Your task to perform on an android device: change the upload size in google photos Image 0: 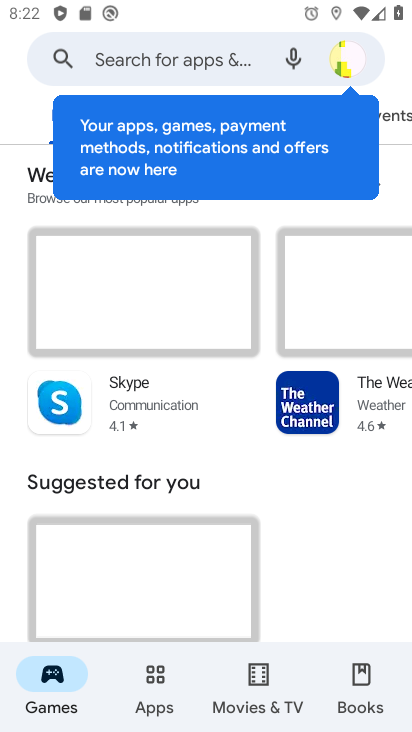
Step 0: press home button
Your task to perform on an android device: change the upload size in google photos Image 1: 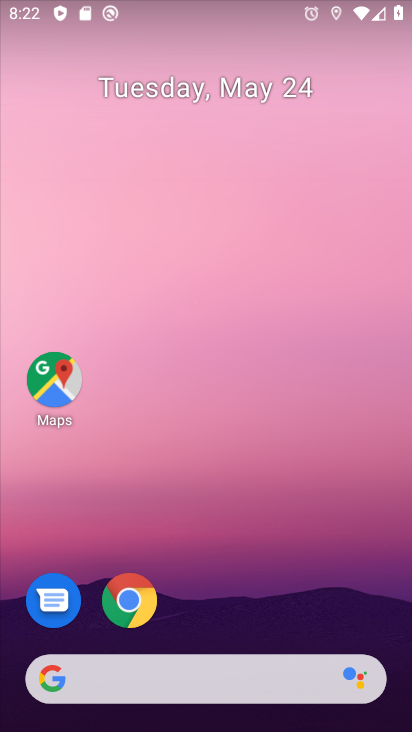
Step 1: drag from (206, 728) to (207, 73)
Your task to perform on an android device: change the upload size in google photos Image 2: 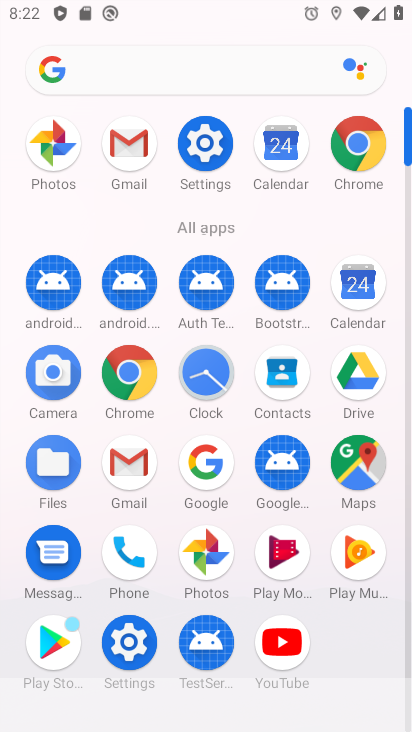
Step 2: click (210, 550)
Your task to perform on an android device: change the upload size in google photos Image 3: 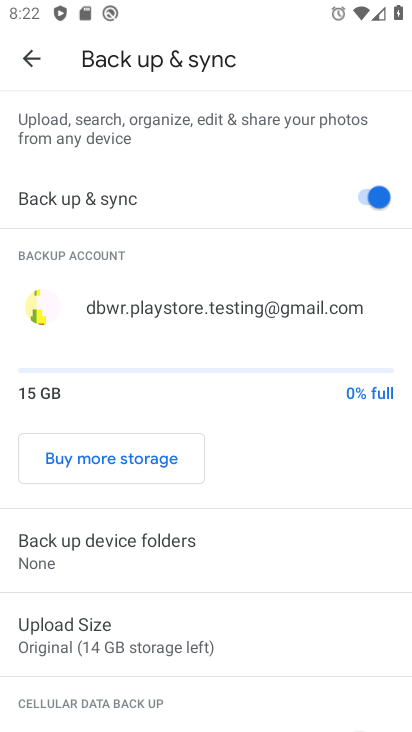
Step 3: click (67, 638)
Your task to perform on an android device: change the upload size in google photos Image 4: 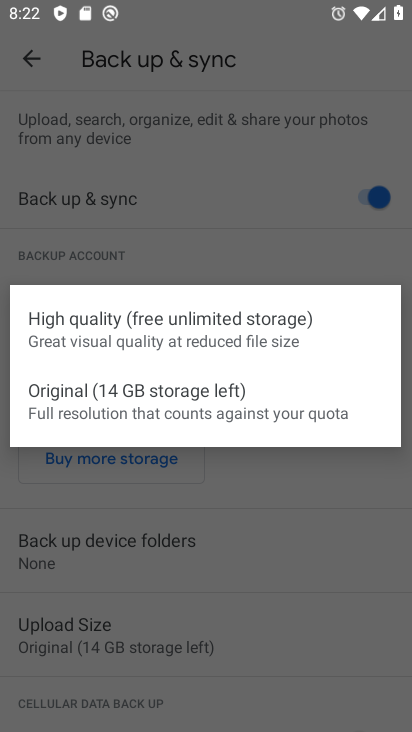
Step 4: click (87, 329)
Your task to perform on an android device: change the upload size in google photos Image 5: 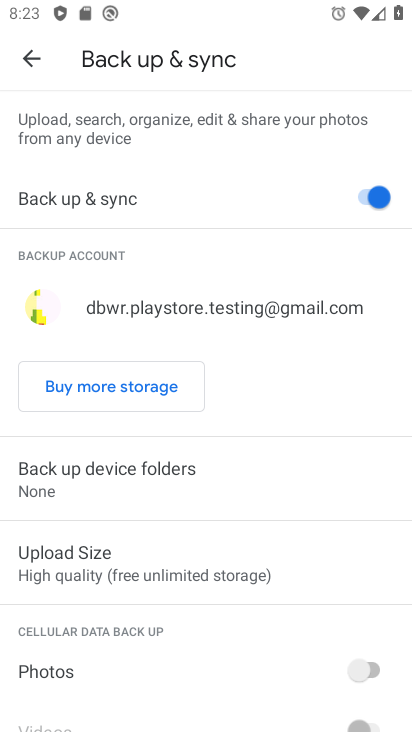
Step 5: task complete